Your task to perform on an android device: show emergency info Image 0: 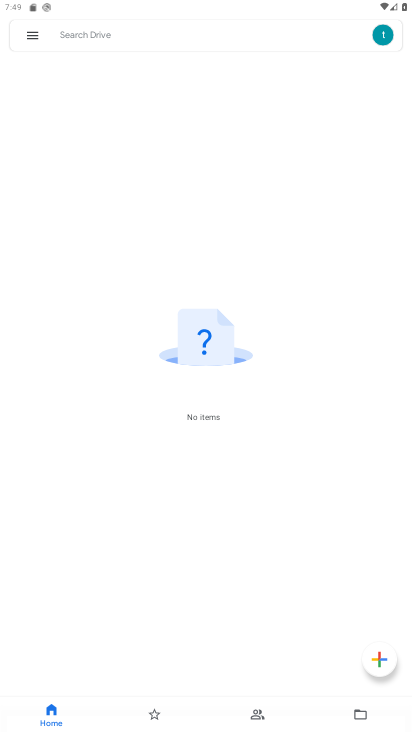
Step 0: press home button
Your task to perform on an android device: show emergency info Image 1: 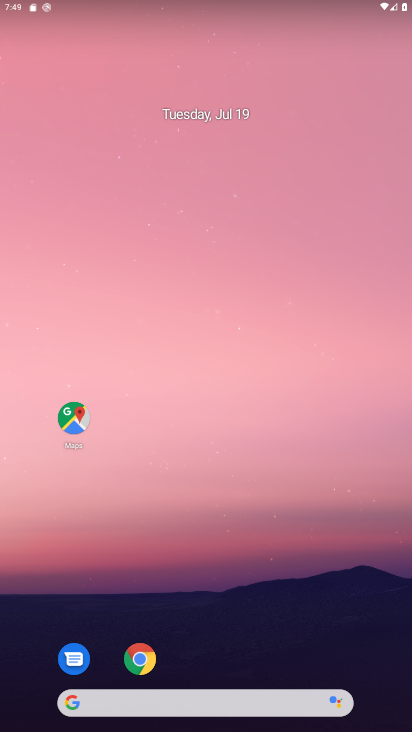
Step 1: drag from (267, 677) to (280, 0)
Your task to perform on an android device: show emergency info Image 2: 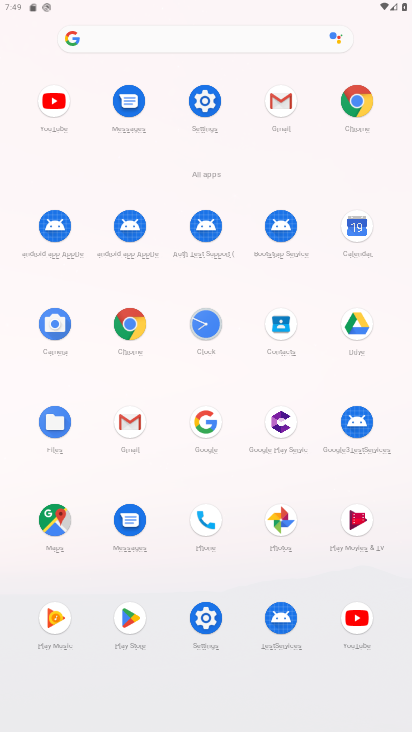
Step 2: click (193, 621)
Your task to perform on an android device: show emergency info Image 3: 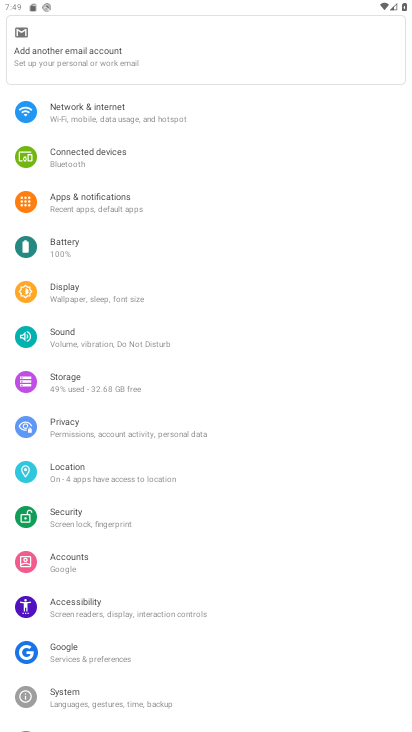
Step 3: click (81, 688)
Your task to perform on an android device: show emergency info Image 4: 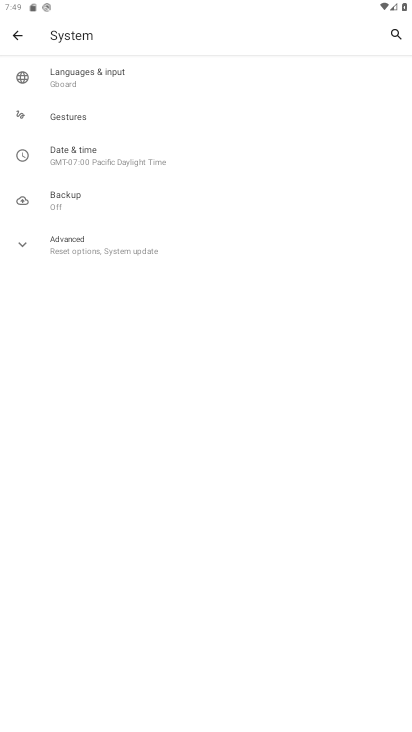
Step 4: click (11, 44)
Your task to perform on an android device: show emergency info Image 5: 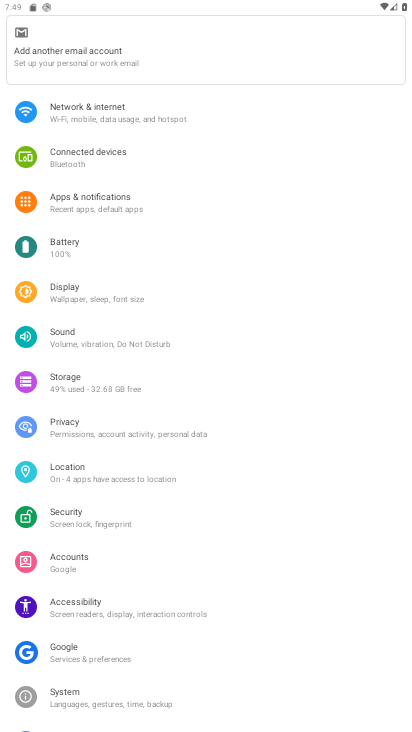
Step 5: drag from (193, 617) to (184, 254)
Your task to perform on an android device: show emergency info Image 6: 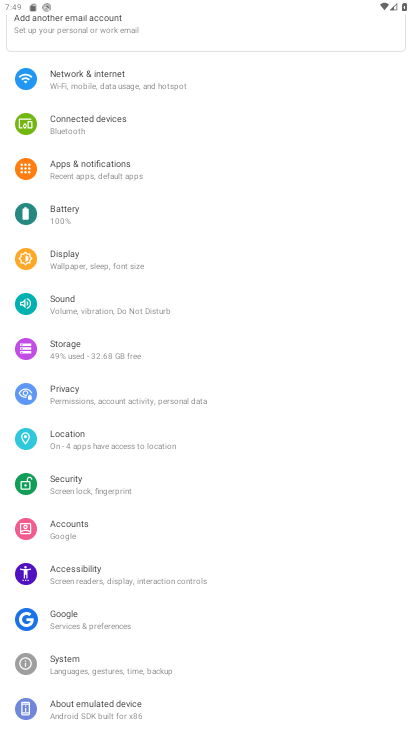
Step 6: click (118, 707)
Your task to perform on an android device: show emergency info Image 7: 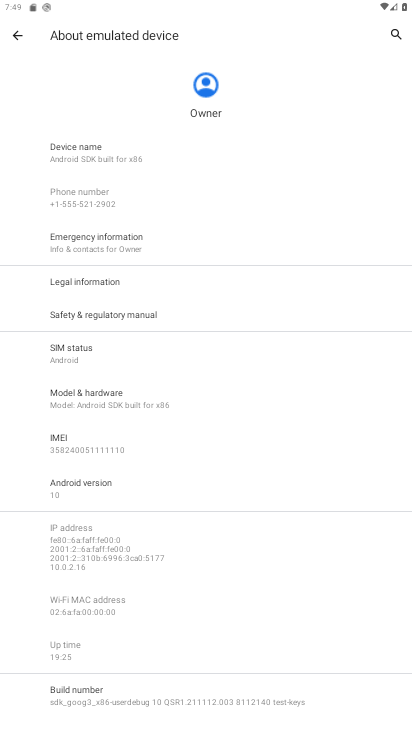
Step 7: click (106, 243)
Your task to perform on an android device: show emergency info Image 8: 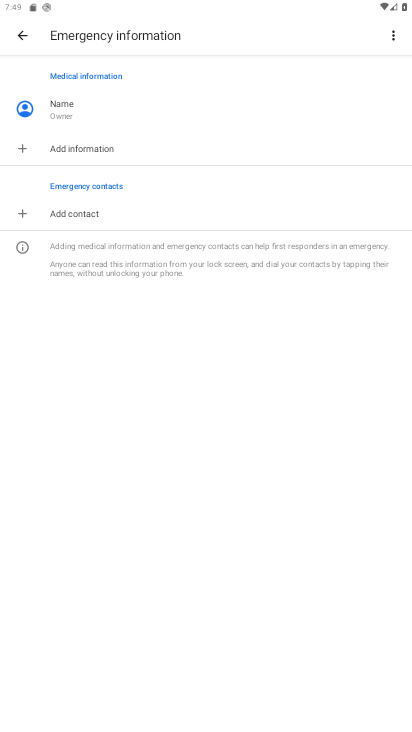
Step 8: task complete